Your task to perform on an android device: allow notifications from all sites in the chrome app Image 0: 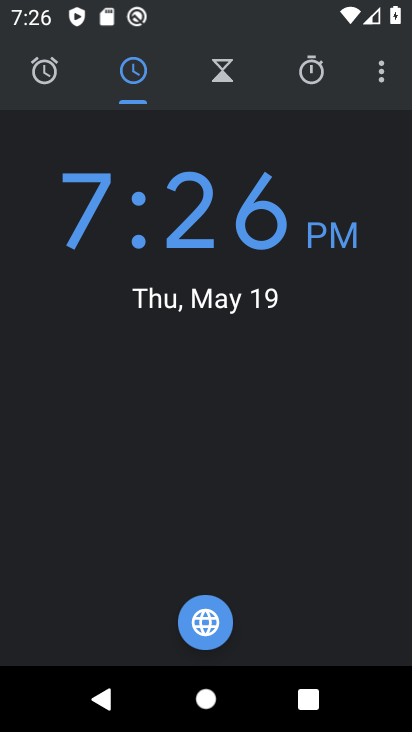
Step 0: press home button
Your task to perform on an android device: allow notifications from all sites in the chrome app Image 1: 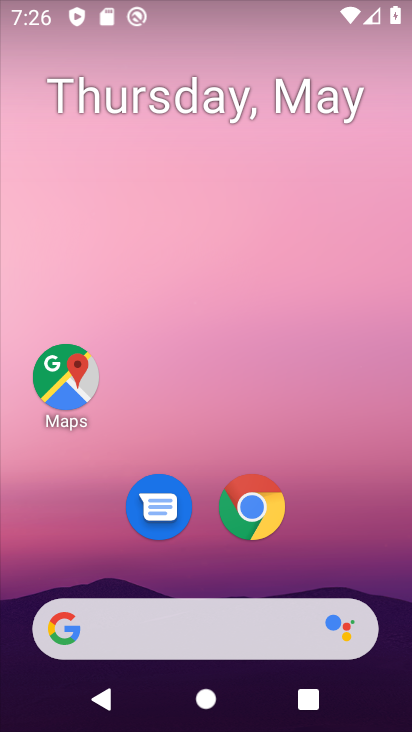
Step 1: drag from (358, 542) to (399, 73)
Your task to perform on an android device: allow notifications from all sites in the chrome app Image 2: 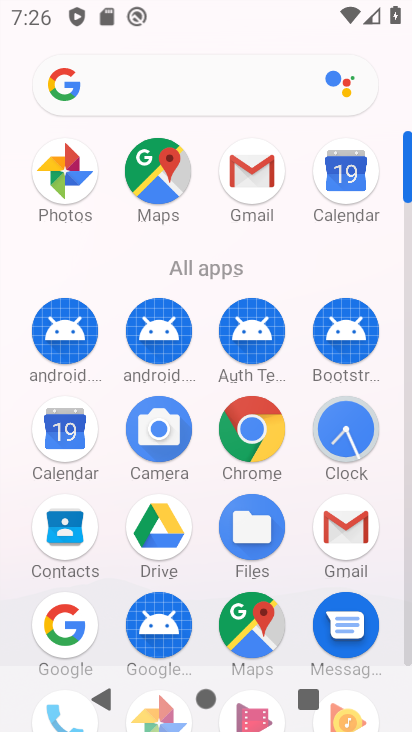
Step 2: click (261, 442)
Your task to perform on an android device: allow notifications from all sites in the chrome app Image 3: 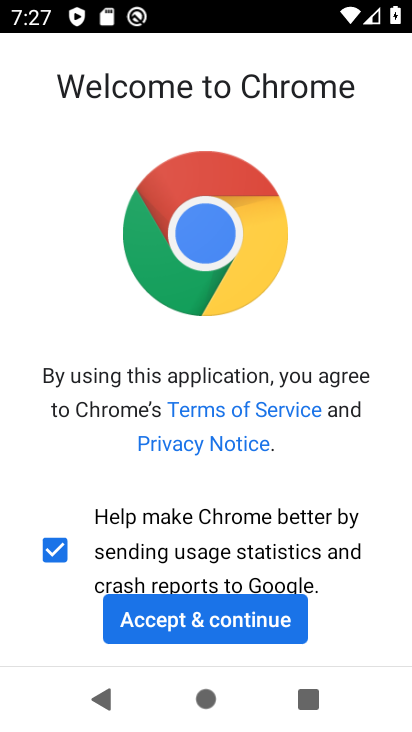
Step 3: click (235, 621)
Your task to perform on an android device: allow notifications from all sites in the chrome app Image 4: 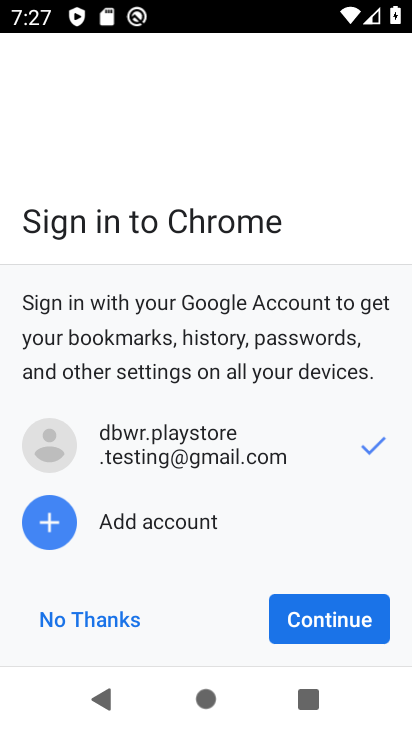
Step 4: click (97, 621)
Your task to perform on an android device: allow notifications from all sites in the chrome app Image 5: 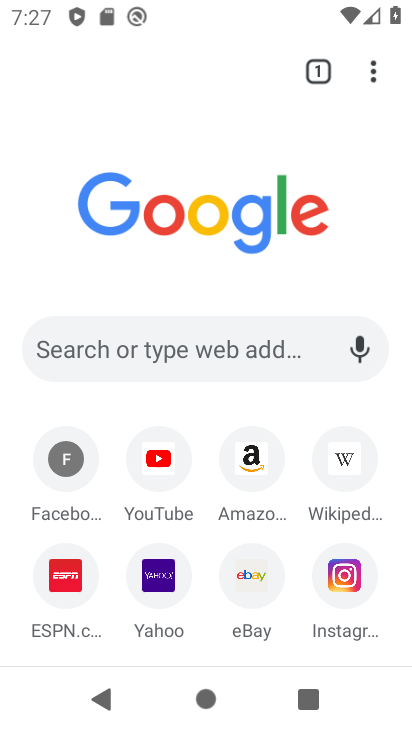
Step 5: drag from (377, 75) to (131, 501)
Your task to perform on an android device: allow notifications from all sites in the chrome app Image 6: 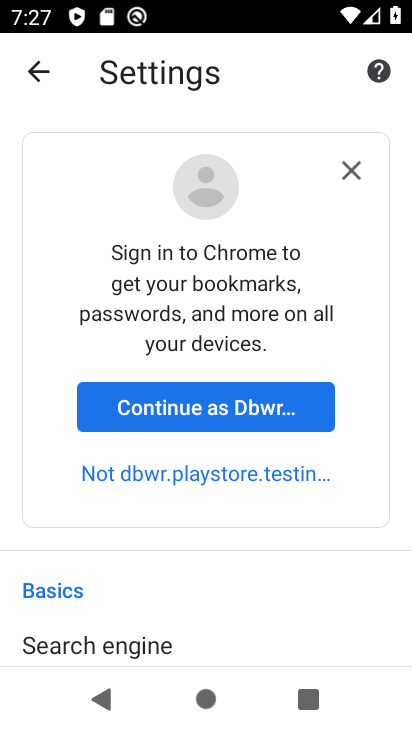
Step 6: drag from (225, 615) to (252, 167)
Your task to perform on an android device: allow notifications from all sites in the chrome app Image 7: 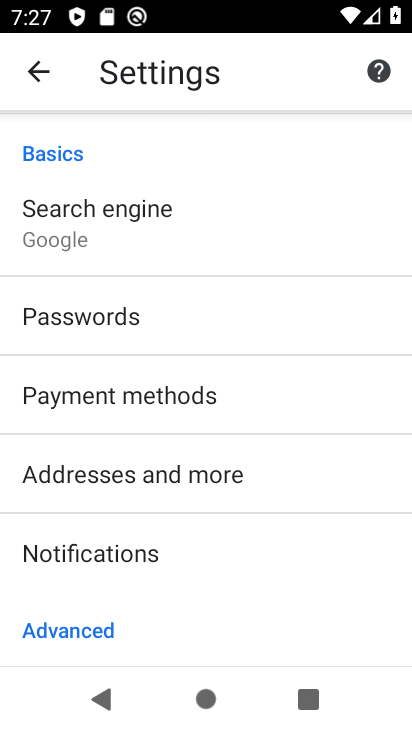
Step 7: drag from (179, 521) to (193, 225)
Your task to perform on an android device: allow notifications from all sites in the chrome app Image 8: 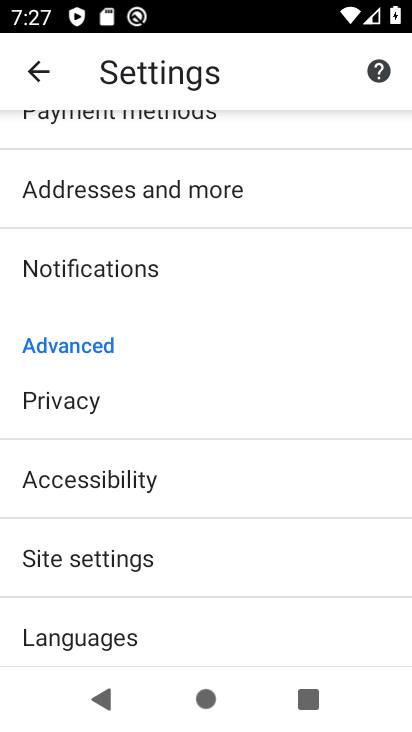
Step 8: click (77, 548)
Your task to perform on an android device: allow notifications from all sites in the chrome app Image 9: 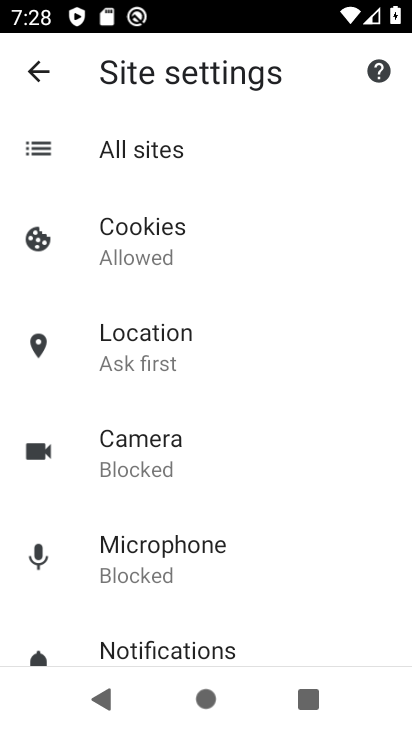
Step 9: drag from (187, 607) to (166, 333)
Your task to perform on an android device: allow notifications from all sites in the chrome app Image 10: 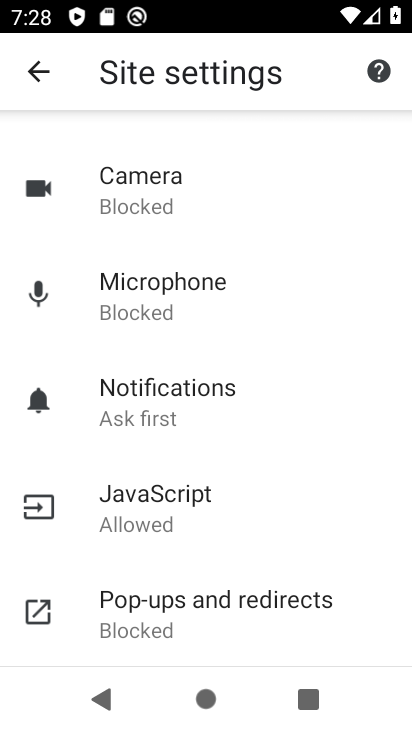
Step 10: click (142, 409)
Your task to perform on an android device: allow notifications from all sites in the chrome app Image 11: 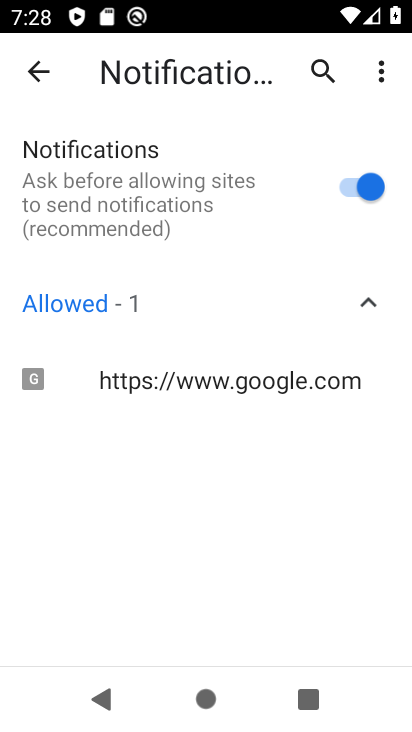
Step 11: task complete